Your task to perform on an android device: Open Android settings Image 0: 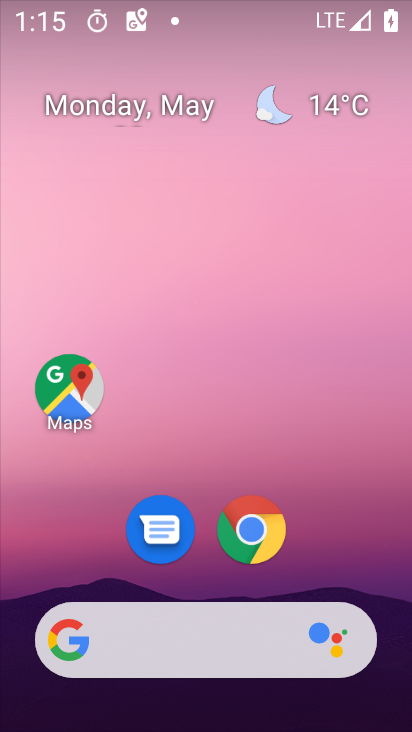
Step 0: drag from (379, 597) to (374, 215)
Your task to perform on an android device: Open Android settings Image 1: 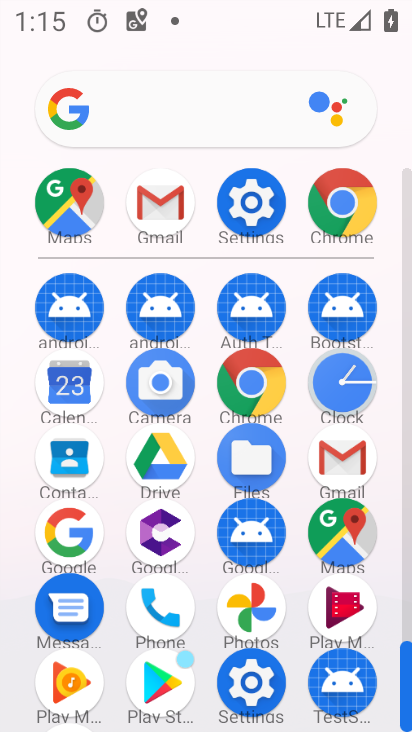
Step 1: click (267, 217)
Your task to perform on an android device: Open Android settings Image 2: 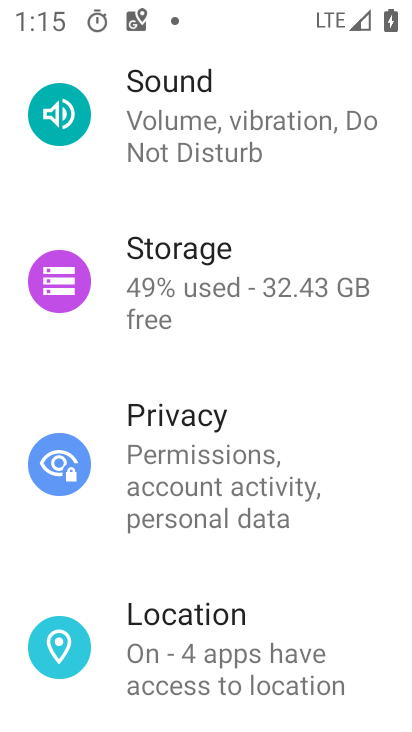
Step 2: drag from (343, 369) to (354, 491)
Your task to perform on an android device: Open Android settings Image 3: 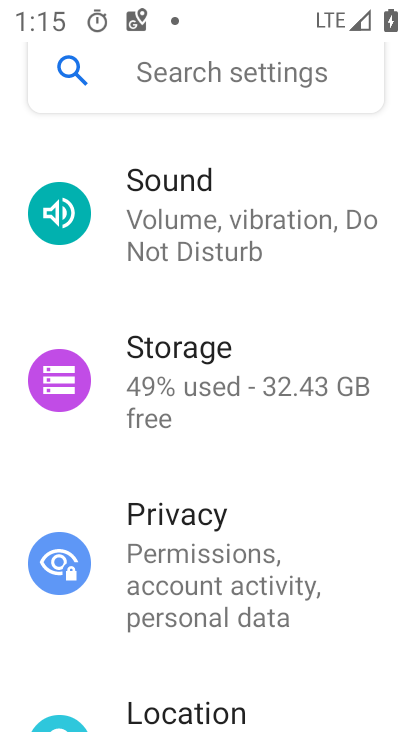
Step 3: drag from (343, 313) to (345, 374)
Your task to perform on an android device: Open Android settings Image 4: 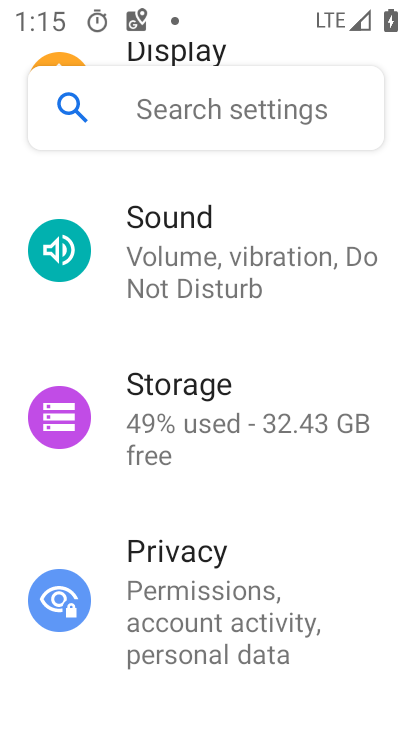
Step 4: drag from (351, 333) to (355, 428)
Your task to perform on an android device: Open Android settings Image 5: 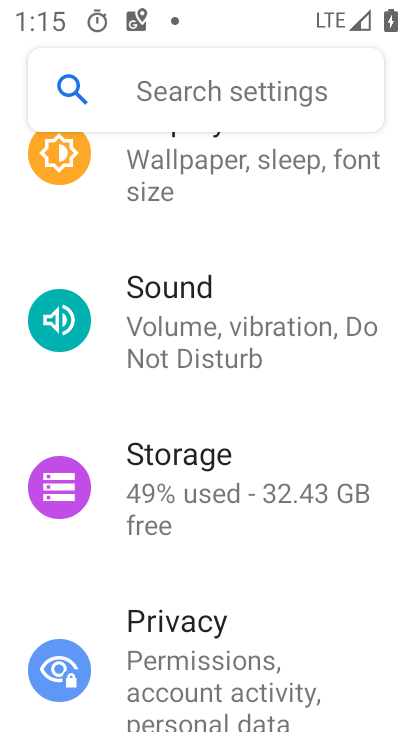
Step 5: drag from (346, 233) to (338, 388)
Your task to perform on an android device: Open Android settings Image 6: 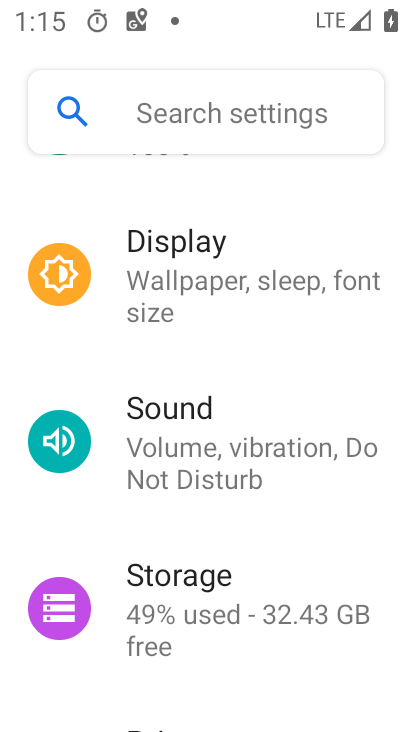
Step 6: drag from (338, 218) to (323, 351)
Your task to perform on an android device: Open Android settings Image 7: 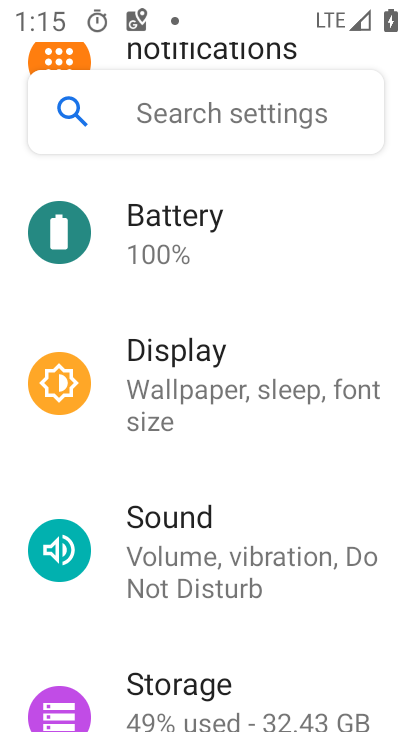
Step 7: drag from (311, 196) to (305, 349)
Your task to perform on an android device: Open Android settings Image 8: 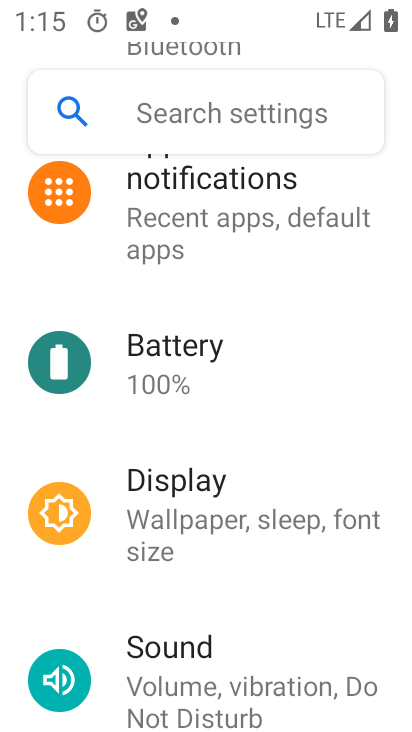
Step 8: drag from (352, 171) to (348, 305)
Your task to perform on an android device: Open Android settings Image 9: 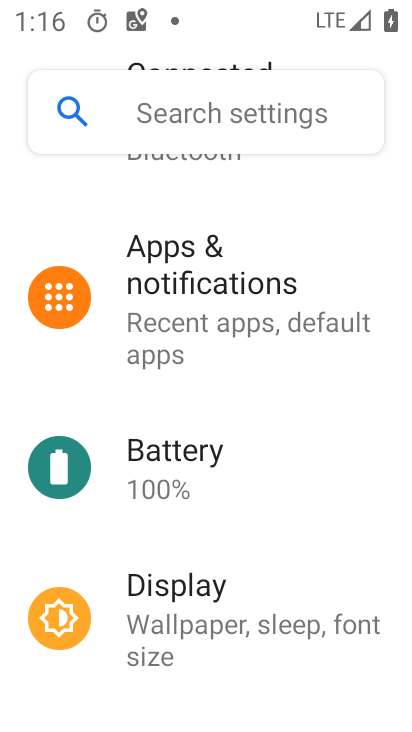
Step 9: drag from (368, 196) to (351, 297)
Your task to perform on an android device: Open Android settings Image 10: 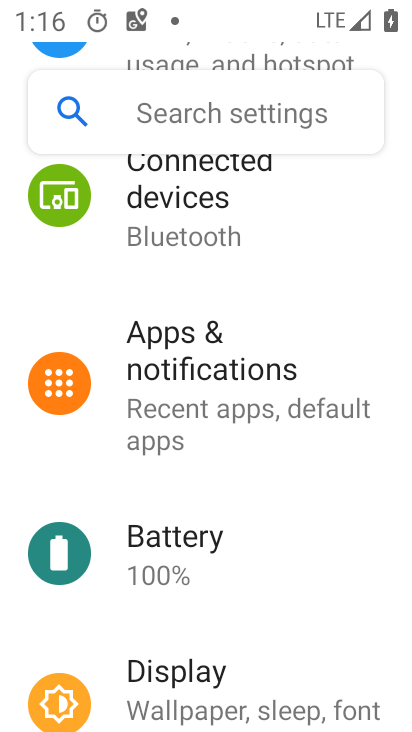
Step 10: drag from (353, 204) to (355, 342)
Your task to perform on an android device: Open Android settings Image 11: 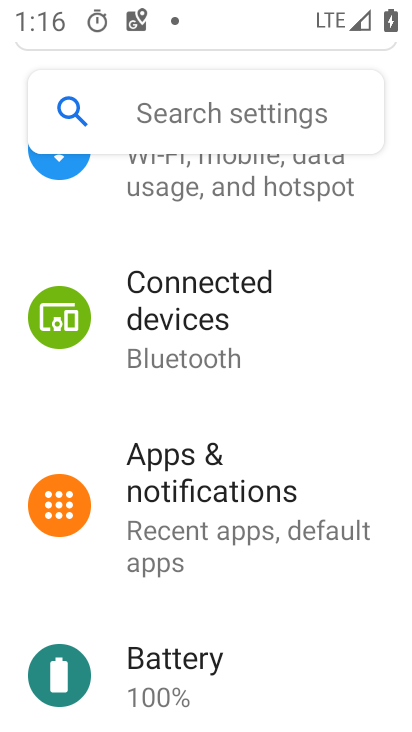
Step 11: drag from (352, 226) to (359, 378)
Your task to perform on an android device: Open Android settings Image 12: 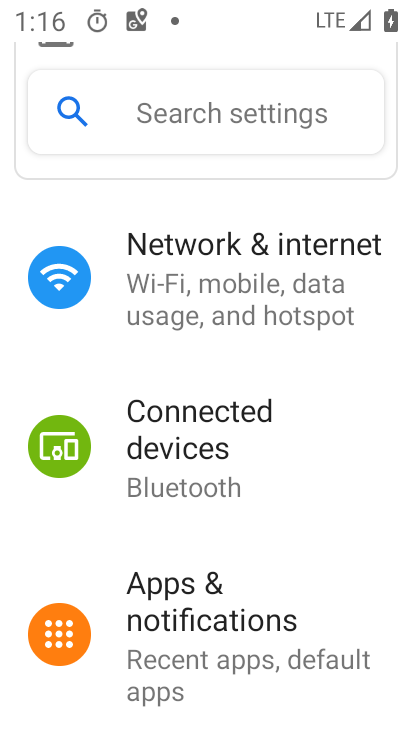
Step 12: drag from (347, 467) to (348, 359)
Your task to perform on an android device: Open Android settings Image 13: 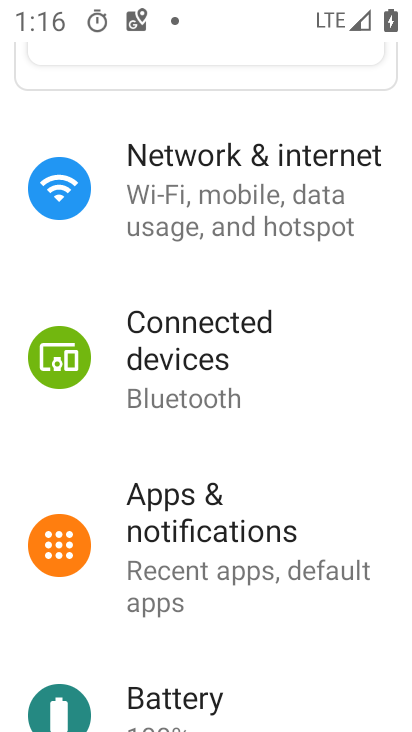
Step 13: drag from (356, 486) to (349, 364)
Your task to perform on an android device: Open Android settings Image 14: 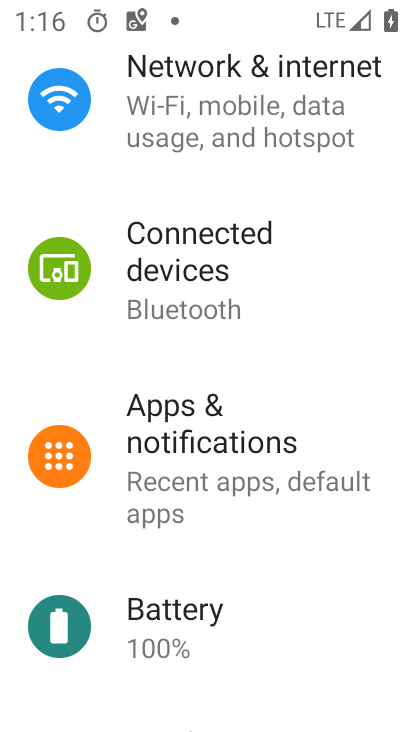
Step 14: drag from (330, 539) to (341, 420)
Your task to perform on an android device: Open Android settings Image 15: 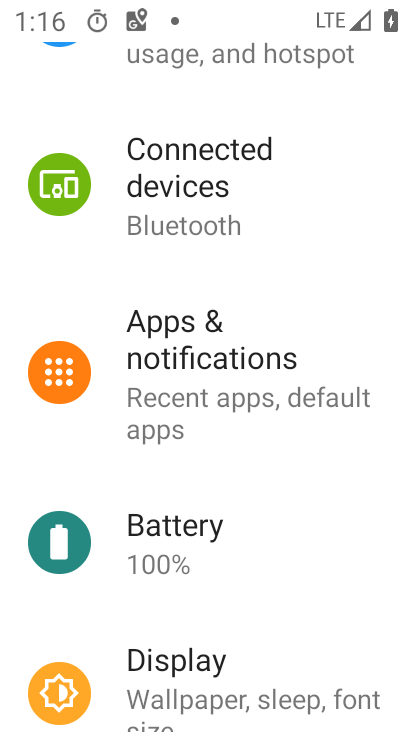
Step 15: drag from (321, 554) to (318, 433)
Your task to perform on an android device: Open Android settings Image 16: 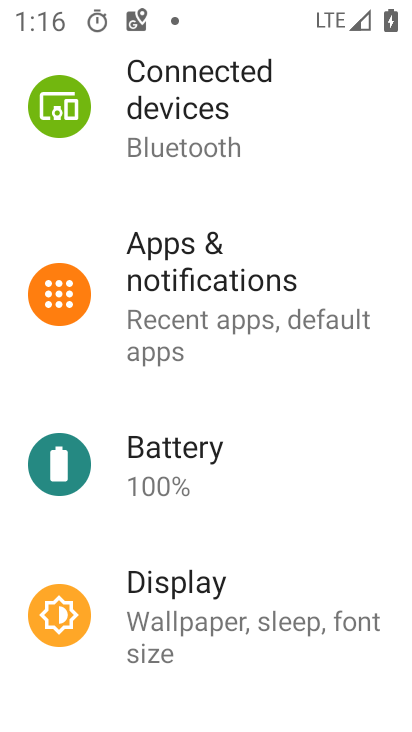
Step 16: drag from (315, 576) to (320, 447)
Your task to perform on an android device: Open Android settings Image 17: 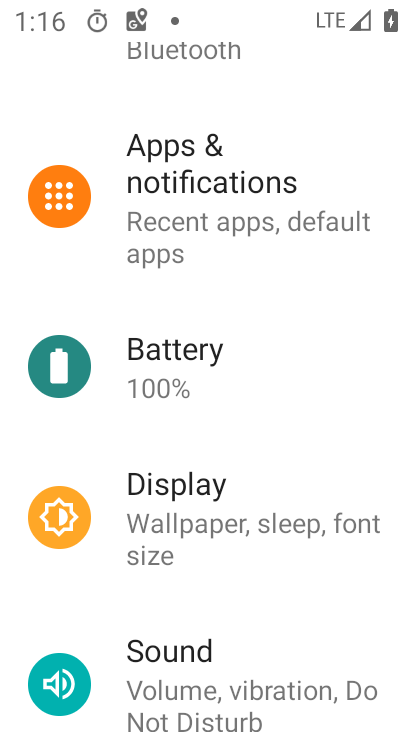
Step 17: drag from (304, 630) to (302, 499)
Your task to perform on an android device: Open Android settings Image 18: 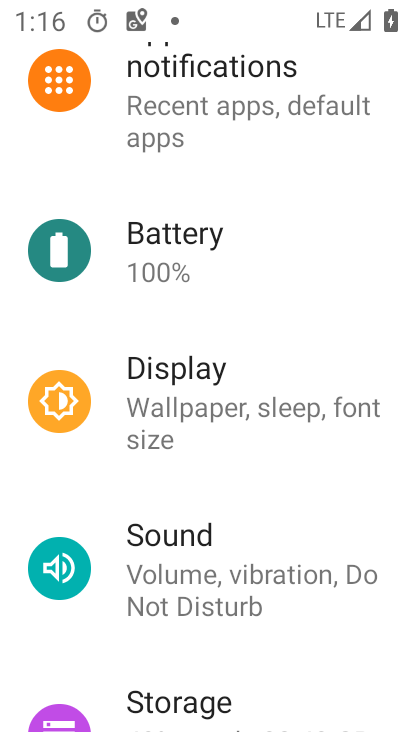
Step 18: drag from (316, 637) to (315, 535)
Your task to perform on an android device: Open Android settings Image 19: 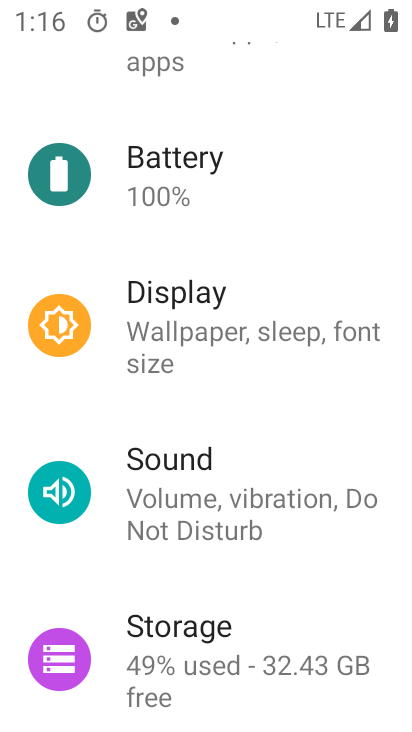
Step 19: drag from (316, 647) to (322, 433)
Your task to perform on an android device: Open Android settings Image 20: 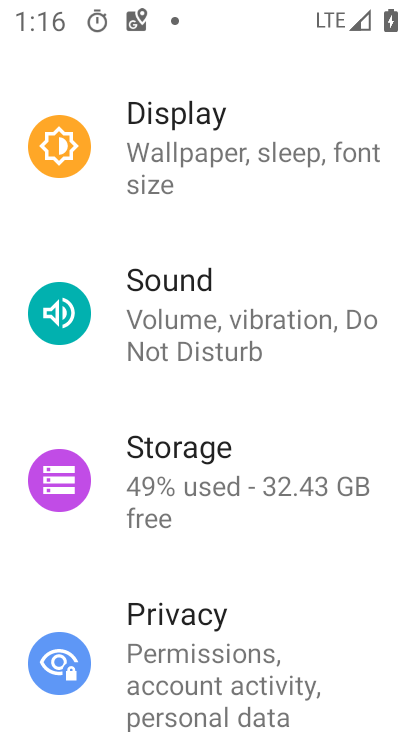
Step 20: drag from (322, 621) to (323, 513)
Your task to perform on an android device: Open Android settings Image 21: 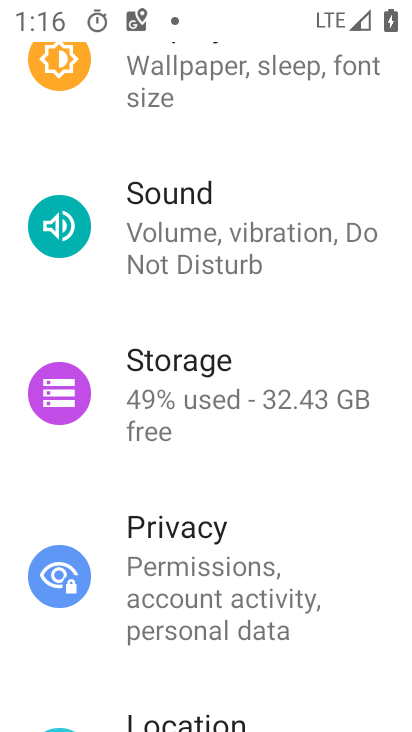
Step 21: drag from (341, 656) to (345, 565)
Your task to perform on an android device: Open Android settings Image 22: 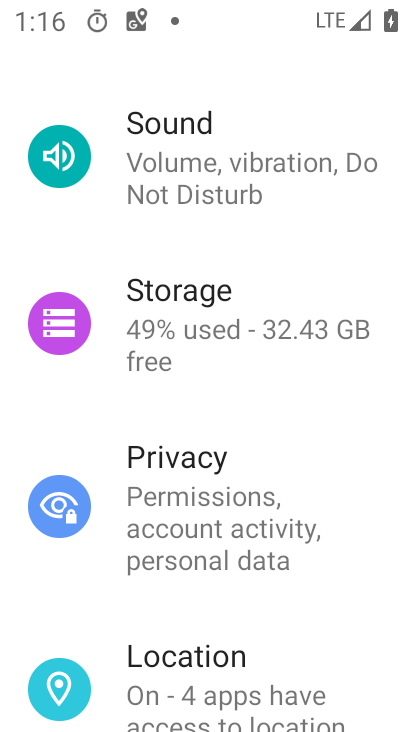
Step 22: drag from (339, 666) to (343, 572)
Your task to perform on an android device: Open Android settings Image 23: 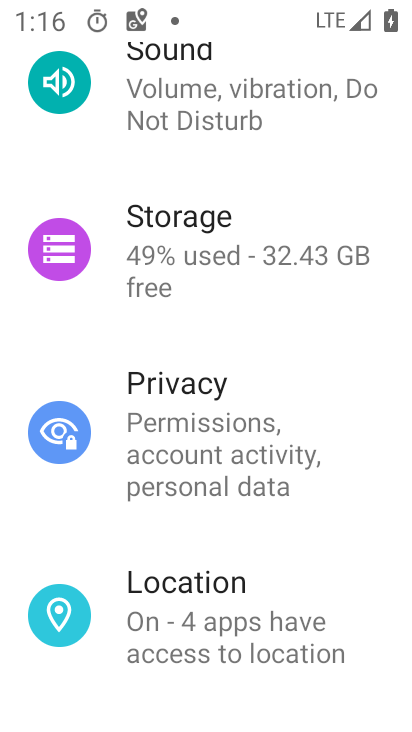
Step 23: drag from (373, 677) to (380, 573)
Your task to perform on an android device: Open Android settings Image 24: 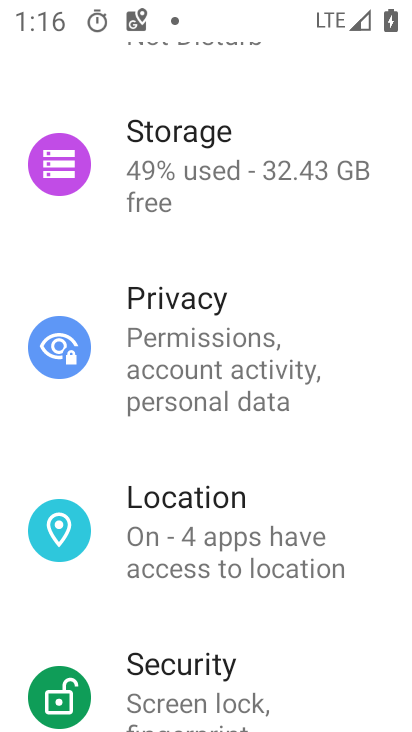
Step 24: drag from (368, 670) to (369, 557)
Your task to perform on an android device: Open Android settings Image 25: 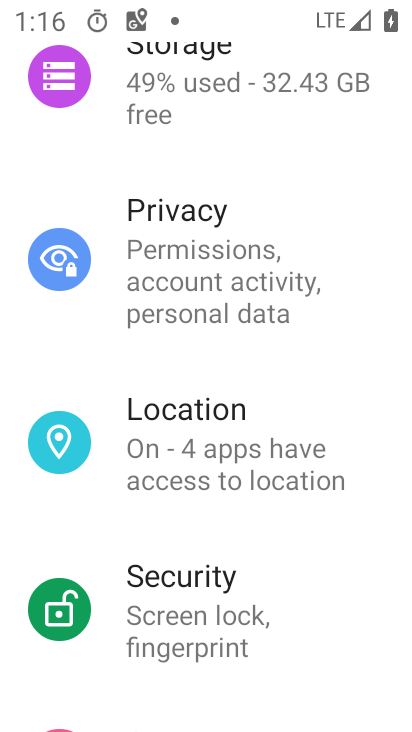
Step 25: drag from (352, 672) to (349, 563)
Your task to perform on an android device: Open Android settings Image 26: 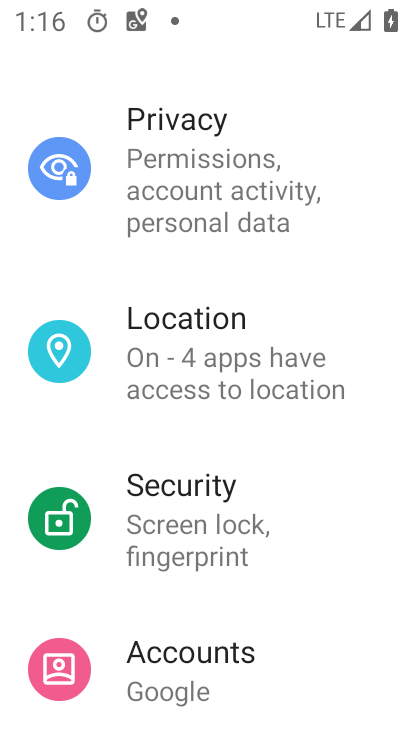
Step 26: drag from (331, 646) to (334, 526)
Your task to perform on an android device: Open Android settings Image 27: 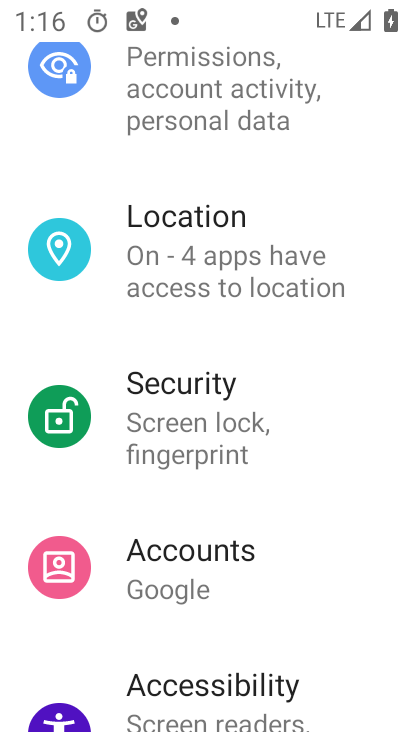
Step 27: drag from (335, 638) to (339, 502)
Your task to perform on an android device: Open Android settings Image 28: 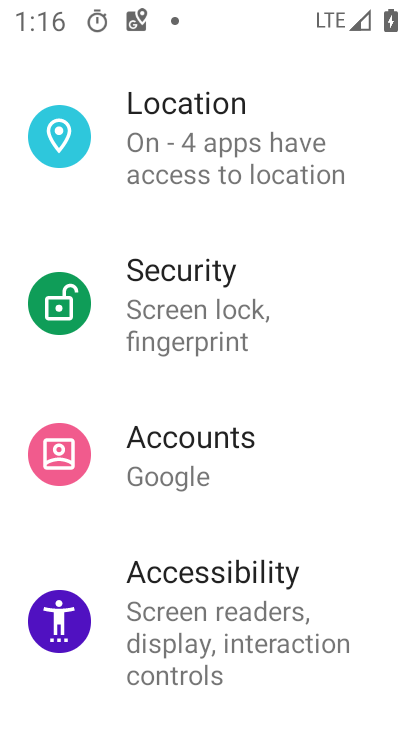
Step 28: drag from (344, 694) to (343, 561)
Your task to perform on an android device: Open Android settings Image 29: 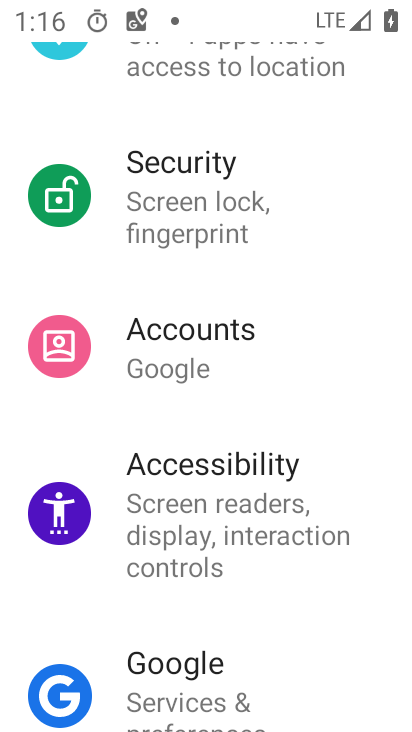
Step 29: drag from (361, 679) to (362, 543)
Your task to perform on an android device: Open Android settings Image 30: 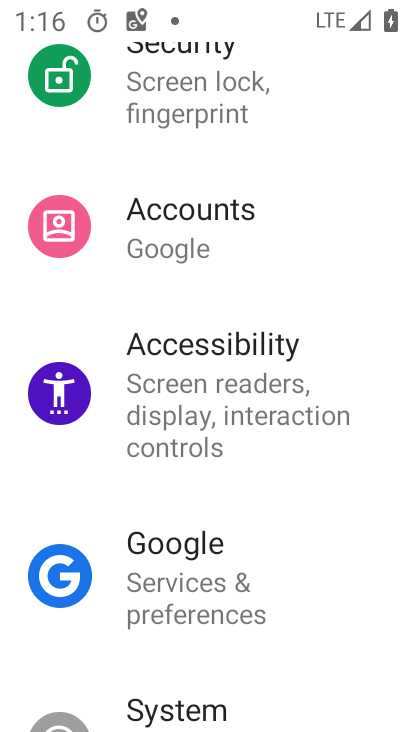
Step 30: drag from (342, 683) to (338, 532)
Your task to perform on an android device: Open Android settings Image 31: 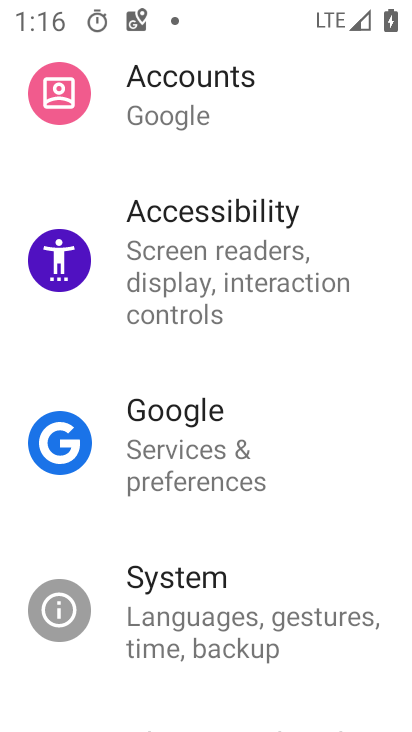
Step 31: click (293, 620)
Your task to perform on an android device: Open Android settings Image 32: 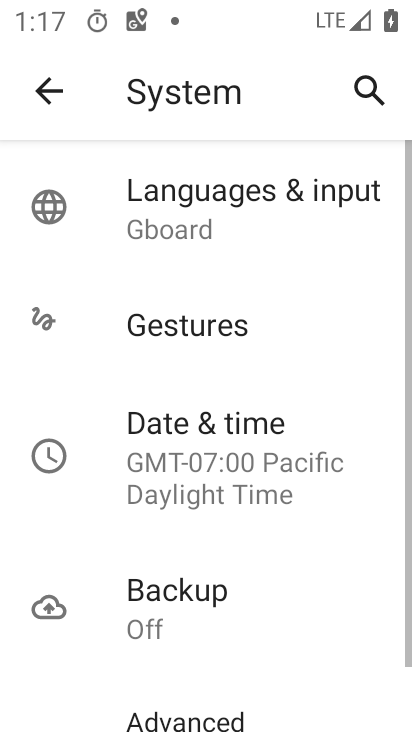
Step 32: drag from (307, 648) to (305, 520)
Your task to perform on an android device: Open Android settings Image 33: 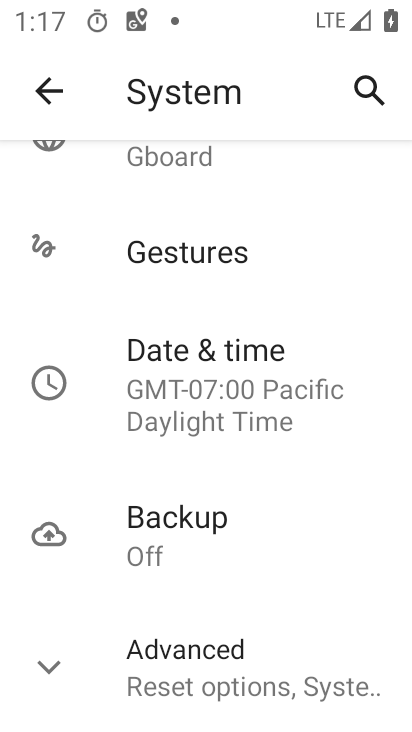
Step 33: click (274, 672)
Your task to perform on an android device: Open Android settings Image 34: 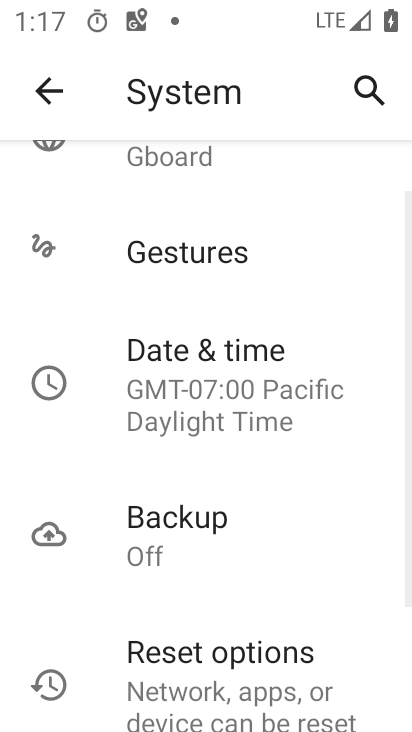
Step 34: task complete